Your task to perform on an android device: What is the recent news? Image 0: 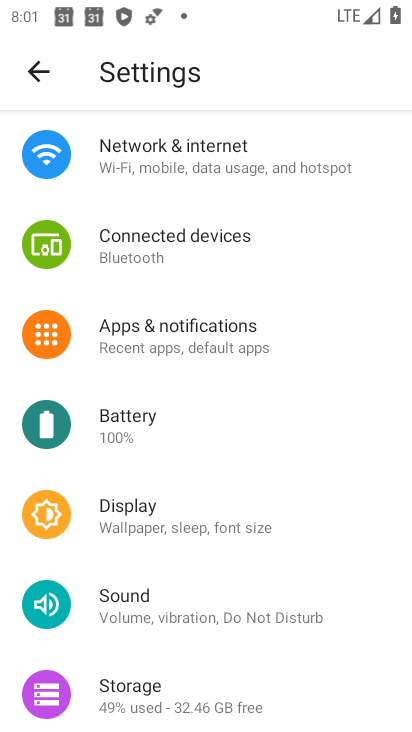
Step 0: press home button
Your task to perform on an android device: What is the recent news? Image 1: 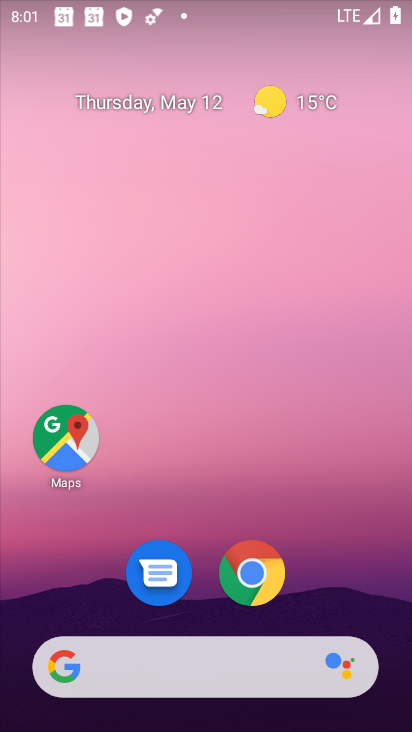
Step 1: task complete